Your task to perform on an android device: Open eBay Image 0: 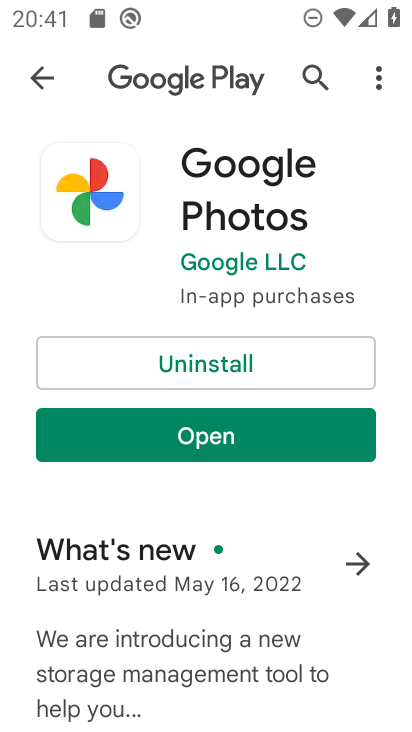
Step 0: press home button
Your task to perform on an android device: Open eBay Image 1: 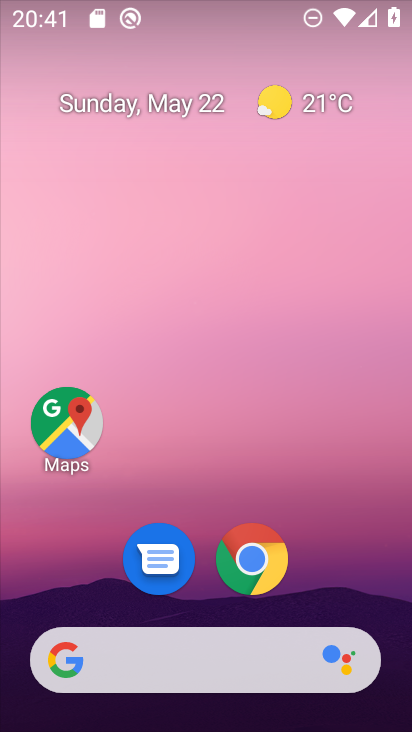
Step 1: drag from (259, 561) to (233, 273)
Your task to perform on an android device: Open eBay Image 2: 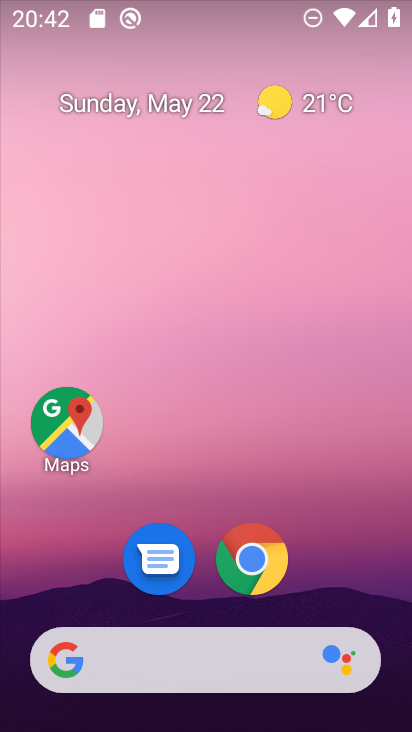
Step 2: drag from (151, 693) to (174, 302)
Your task to perform on an android device: Open eBay Image 3: 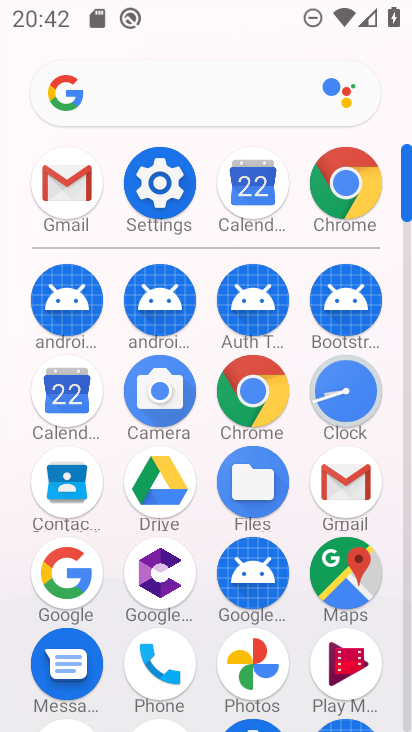
Step 3: click (359, 187)
Your task to perform on an android device: Open eBay Image 4: 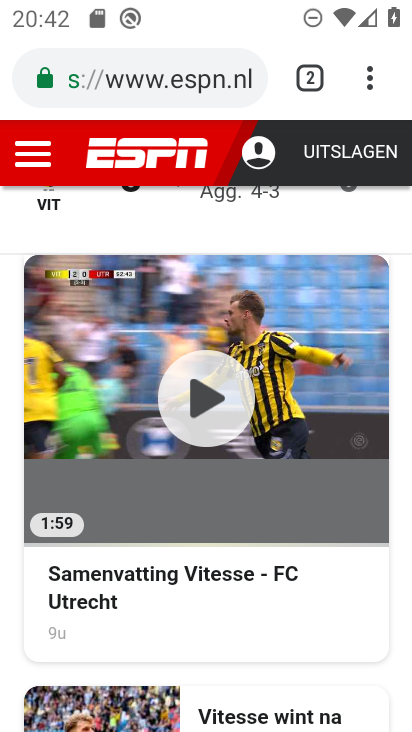
Step 4: click (142, 91)
Your task to perform on an android device: Open eBay Image 5: 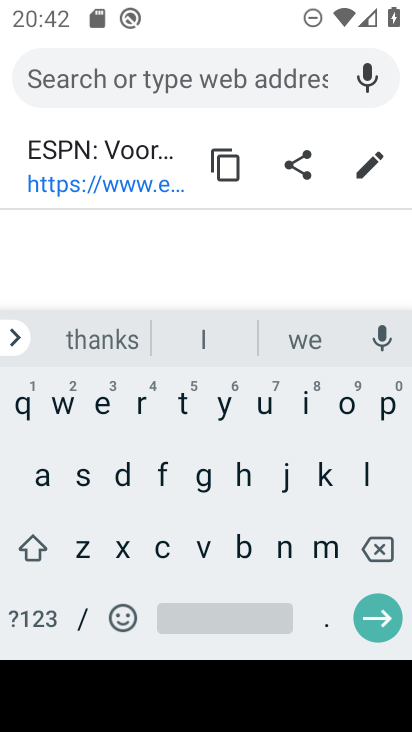
Step 5: click (100, 415)
Your task to perform on an android device: Open eBay Image 6: 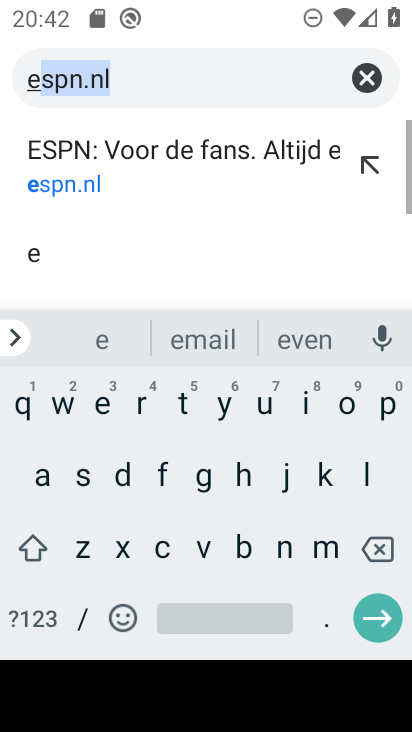
Step 6: click (250, 545)
Your task to perform on an android device: Open eBay Image 7: 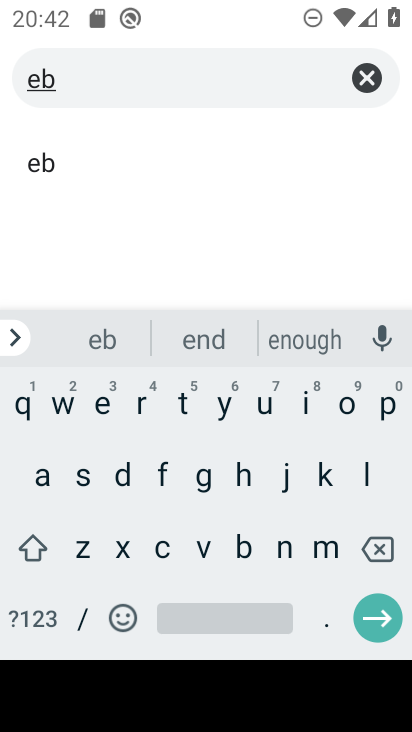
Step 7: click (44, 484)
Your task to perform on an android device: Open eBay Image 8: 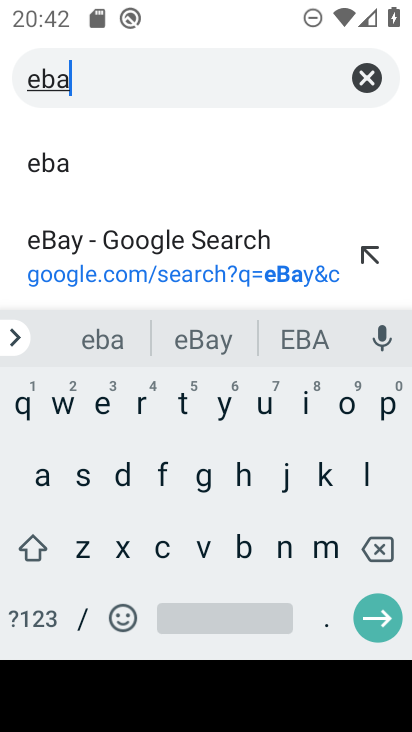
Step 8: click (116, 254)
Your task to perform on an android device: Open eBay Image 9: 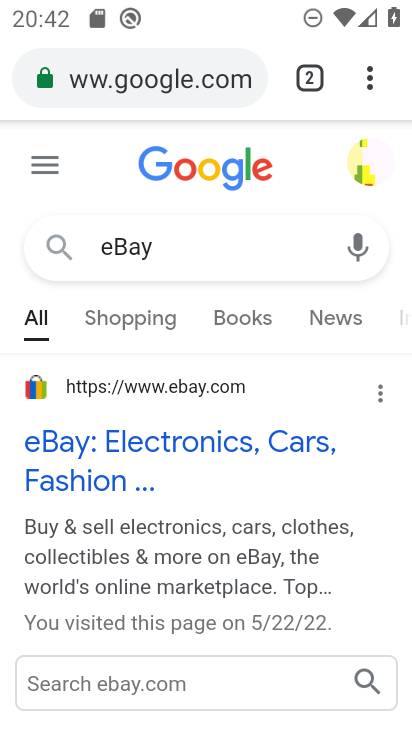
Step 9: click (122, 441)
Your task to perform on an android device: Open eBay Image 10: 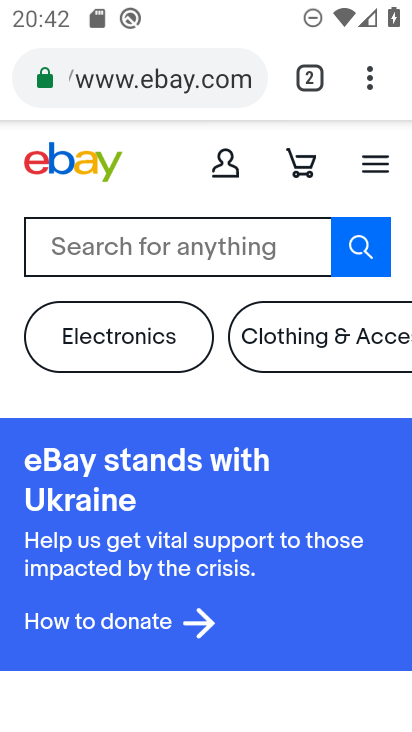
Step 10: task complete